Your task to perform on an android device: What is the recent news? Image 0: 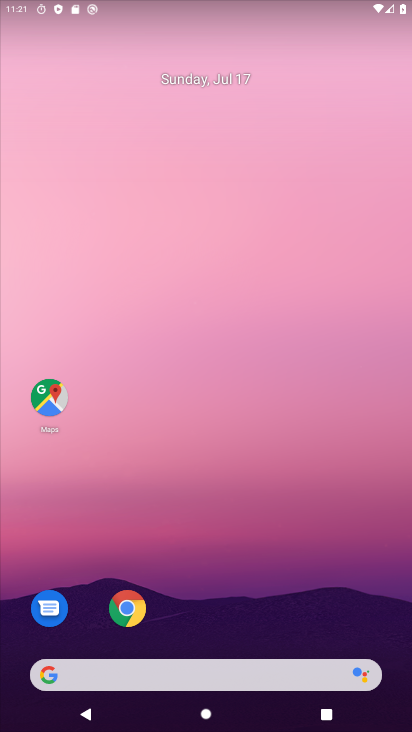
Step 0: click (153, 679)
Your task to perform on an android device: What is the recent news? Image 1: 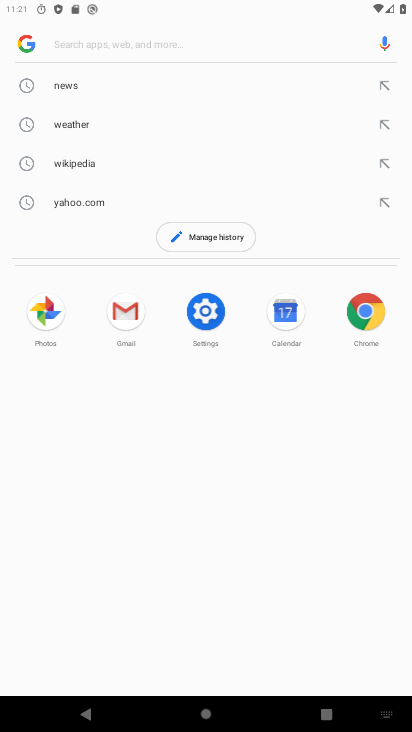
Step 1: type "what is the recent news?"
Your task to perform on an android device: What is the recent news? Image 2: 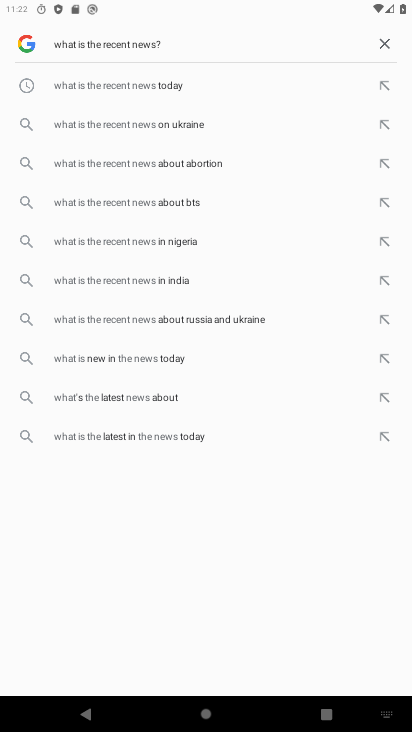
Step 2: click (166, 74)
Your task to perform on an android device: What is the recent news? Image 3: 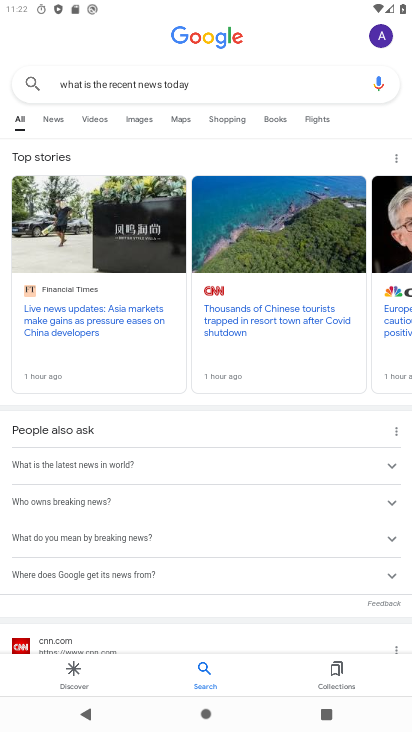
Step 3: click (52, 121)
Your task to perform on an android device: What is the recent news? Image 4: 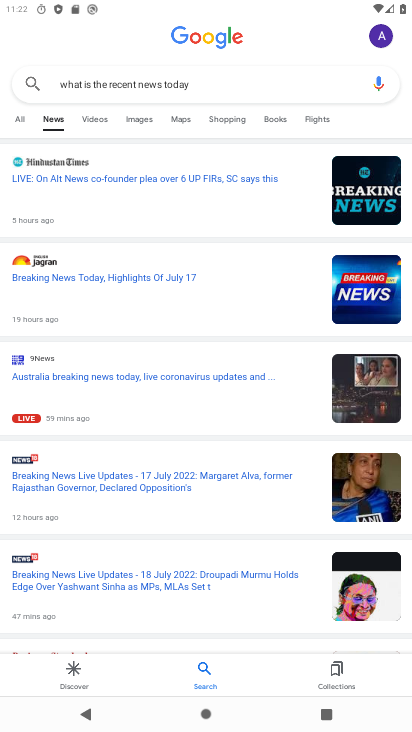
Step 4: task complete